Your task to perform on an android device: Search for vegetarian restaurants on Maps Image 0: 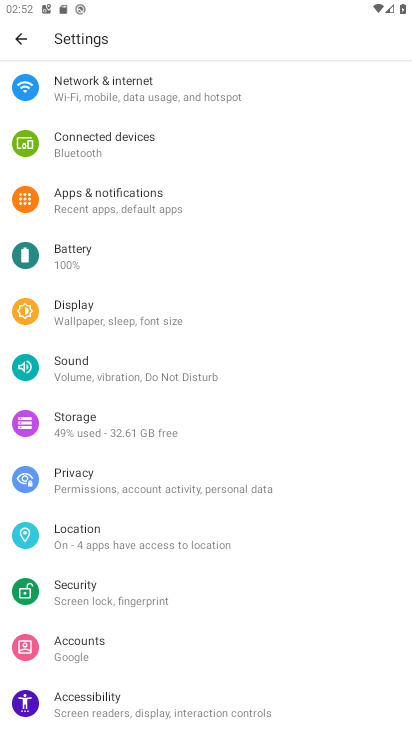
Step 0: press home button
Your task to perform on an android device: Search for vegetarian restaurants on Maps Image 1: 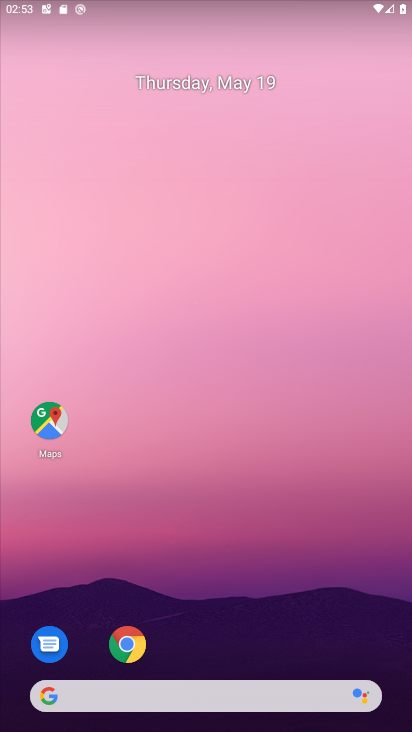
Step 1: click (272, 542)
Your task to perform on an android device: Search for vegetarian restaurants on Maps Image 2: 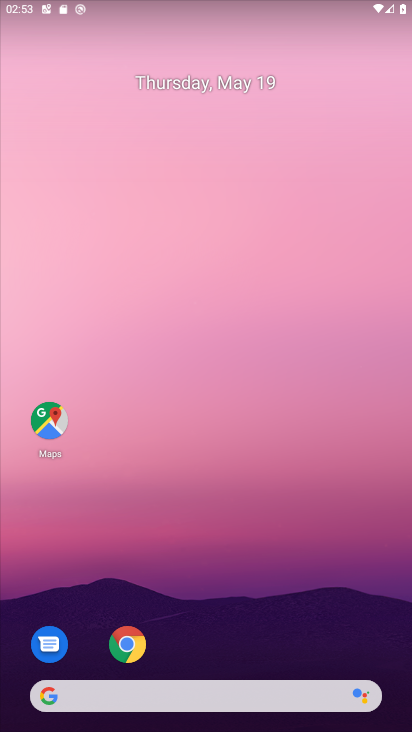
Step 2: click (51, 414)
Your task to perform on an android device: Search for vegetarian restaurants on Maps Image 3: 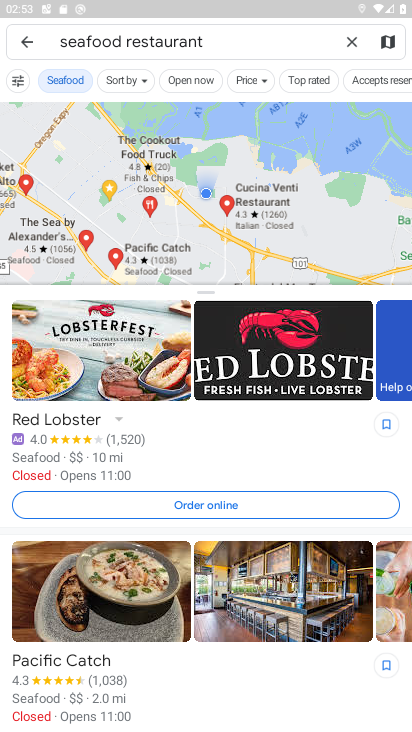
Step 3: click (344, 31)
Your task to perform on an android device: Search for vegetarian restaurants on Maps Image 4: 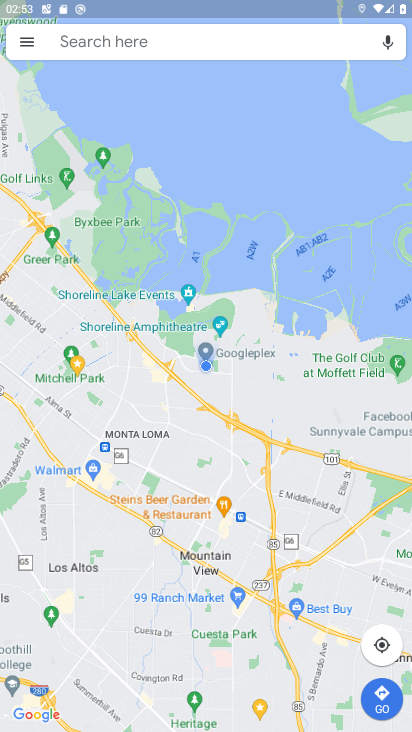
Step 4: click (270, 36)
Your task to perform on an android device: Search for vegetarian restaurants on Maps Image 5: 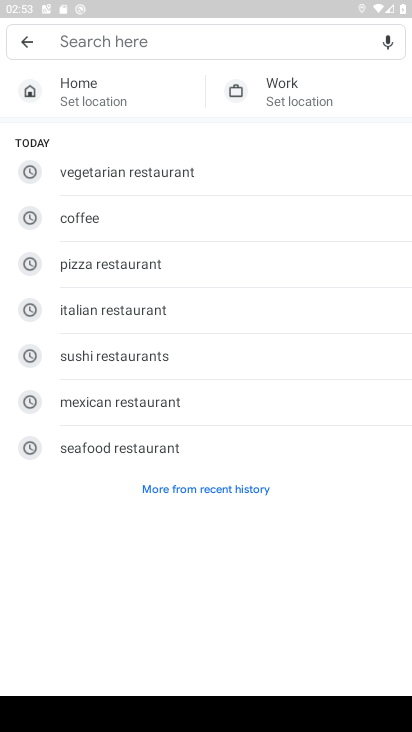
Step 5: type "vegetarian restaurants "
Your task to perform on an android device: Search for vegetarian restaurants on Maps Image 6: 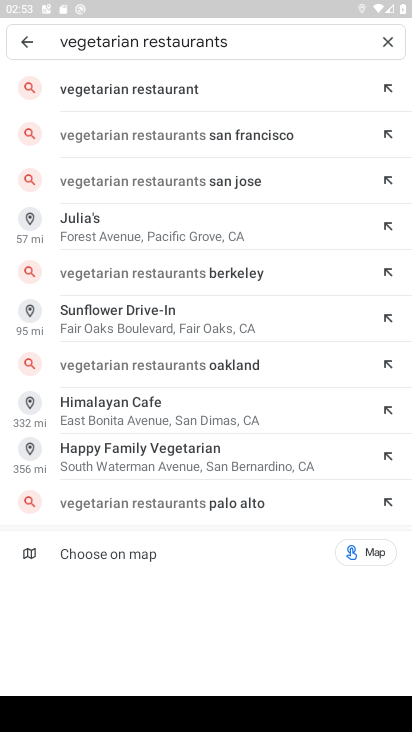
Step 6: click (167, 86)
Your task to perform on an android device: Search for vegetarian restaurants on Maps Image 7: 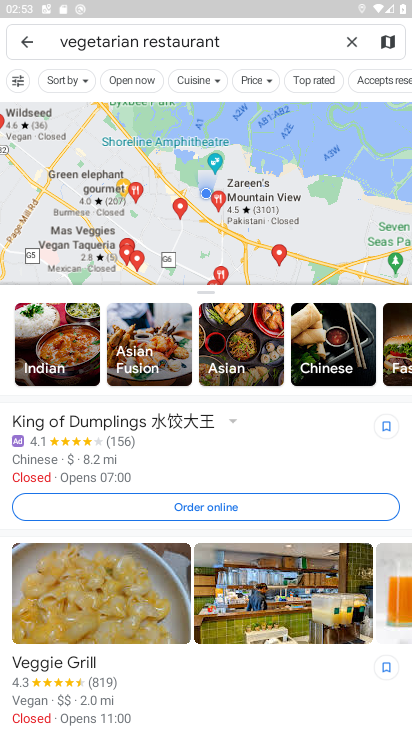
Step 7: task complete